Your task to perform on an android device: toggle wifi Image 0: 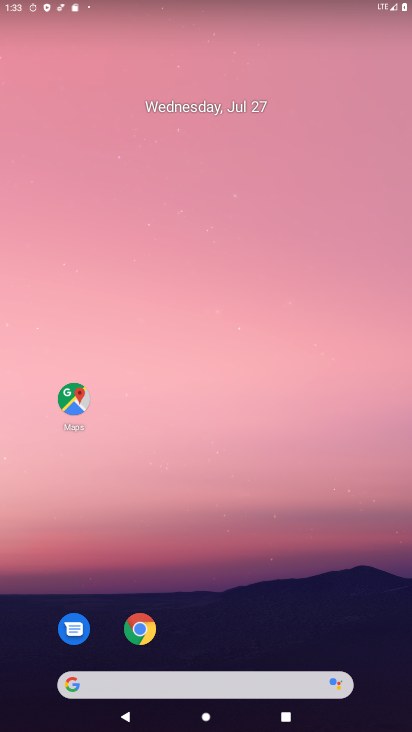
Step 0: press home button
Your task to perform on an android device: toggle wifi Image 1: 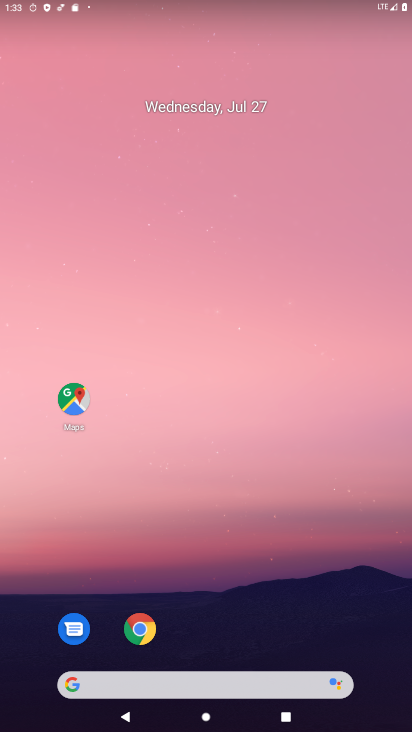
Step 1: drag from (188, 7) to (233, 540)
Your task to perform on an android device: toggle wifi Image 2: 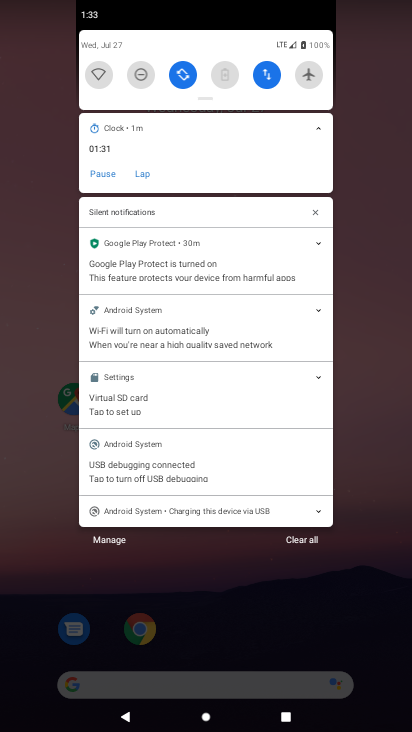
Step 2: click (98, 75)
Your task to perform on an android device: toggle wifi Image 3: 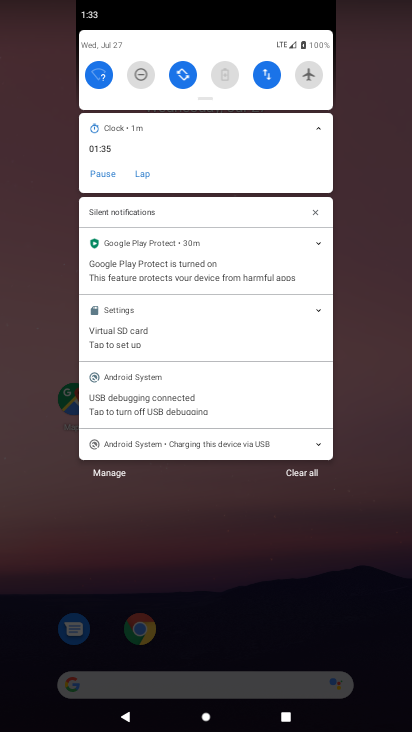
Step 3: task complete